Your task to perform on an android device: change keyboard looks Image 0: 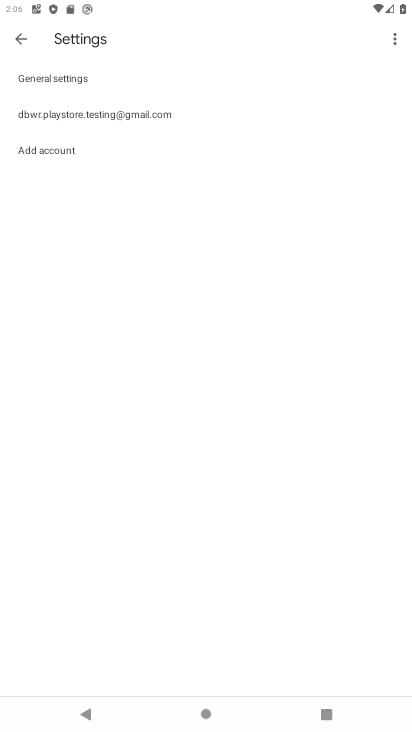
Step 0: press home button
Your task to perform on an android device: change keyboard looks Image 1: 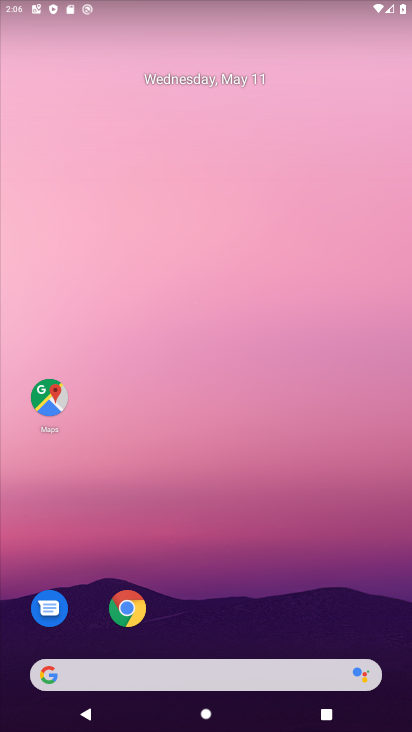
Step 1: drag from (157, 52) to (252, 536)
Your task to perform on an android device: change keyboard looks Image 2: 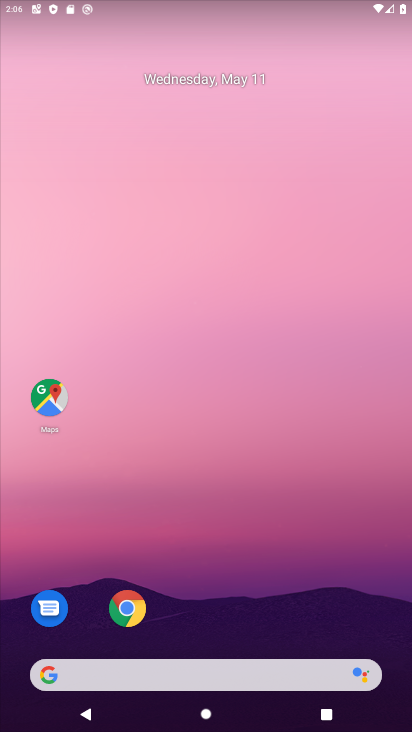
Step 2: drag from (170, 9) to (164, 639)
Your task to perform on an android device: change keyboard looks Image 3: 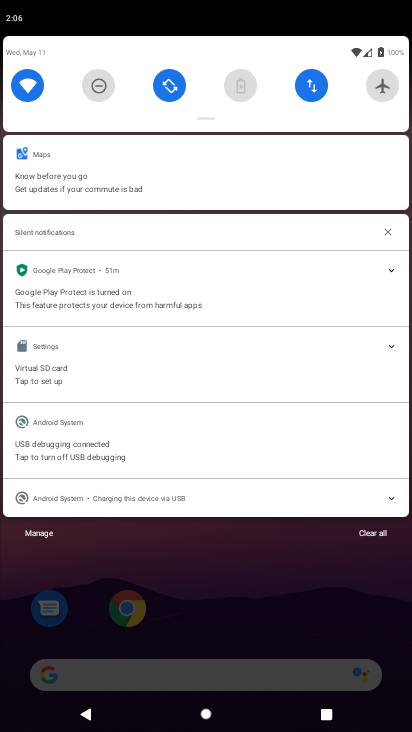
Step 3: drag from (349, 200) to (411, 491)
Your task to perform on an android device: change keyboard looks Image 4: 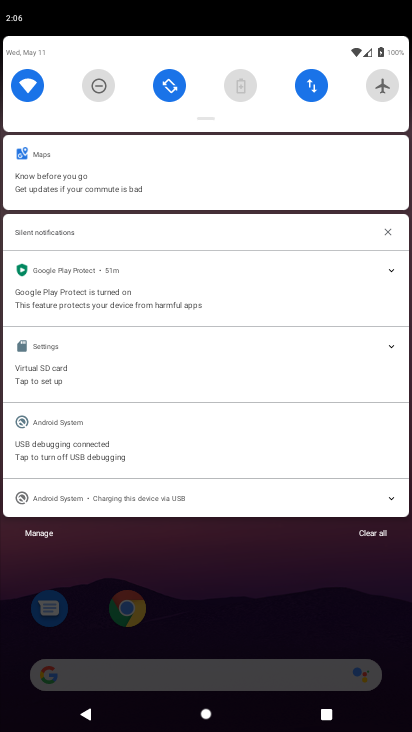
Step 4: click (297, 612)
Your task to perform on an android device: change keyboard looks Image 5: 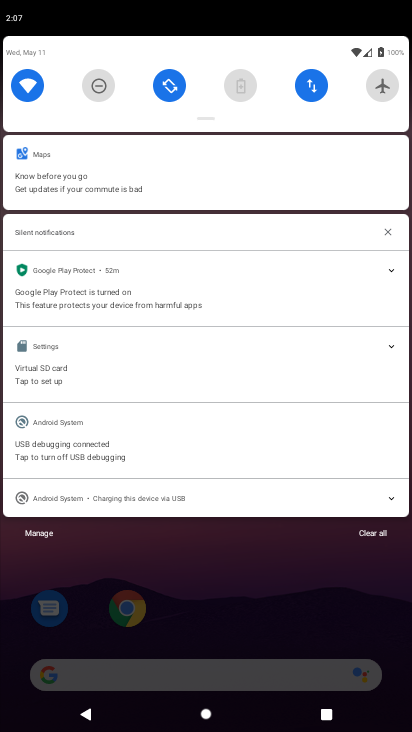
Step 5: drag from (303, 591) to (349, 54)
Your task to perform on an android device: change keyboard looks Image 6: 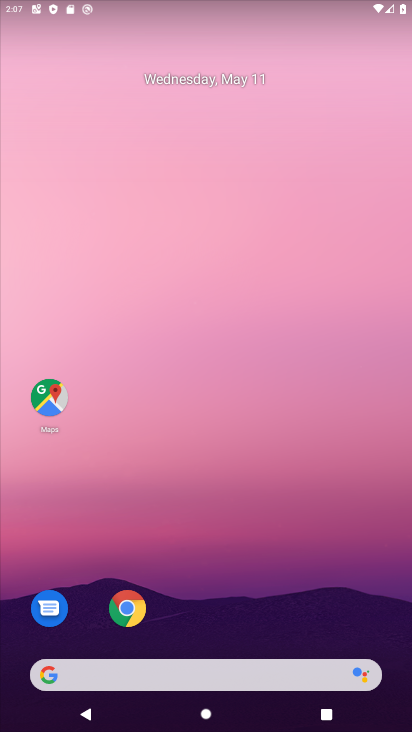
Step 6: drag from (246, 564) to (241, 52)
Your task to perform on an android device: change keyboard looks Image 7: 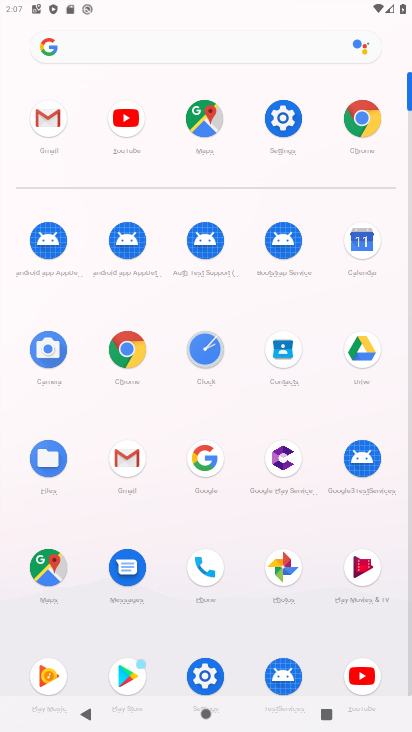
Step 7: click (268, 129)
Your task to perform on an android device: change keyboard looks Image 8: 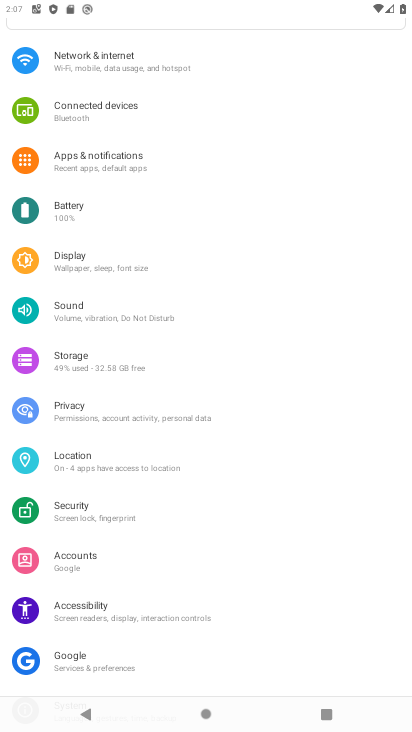
Step 8: drag from (275, 497) to (367, 82)
Your task to perform on an android device: change keyboard looks Image 9: 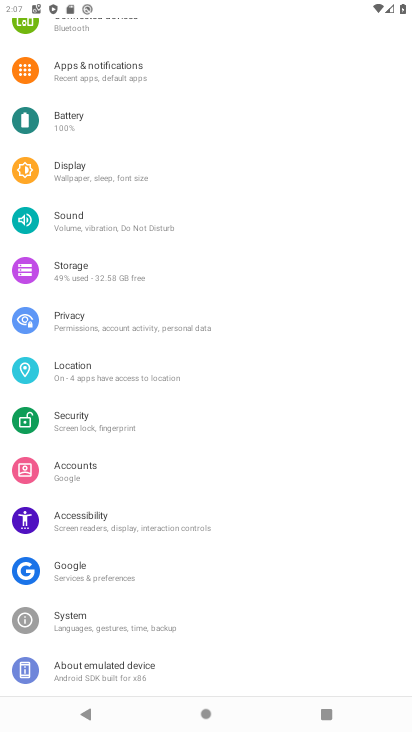
Step 9: click (188, 628)
Your task to perform on an android device: change keyboard looks Image 10: 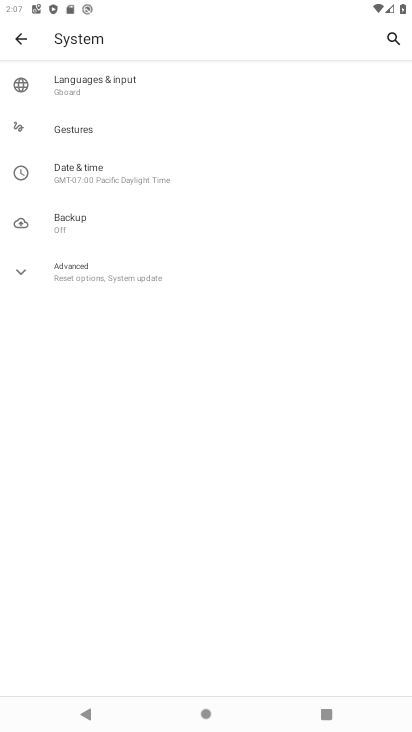
Step 10: click (100, 90)
Your task to perform on an android device: change keyboard looks Image 11: 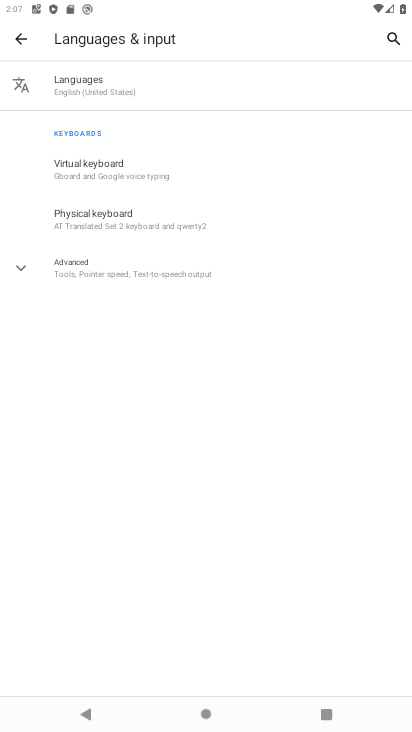
Step 11: click (132, 168)
Your task to perform on an android device: change keyboard looks Image 12: 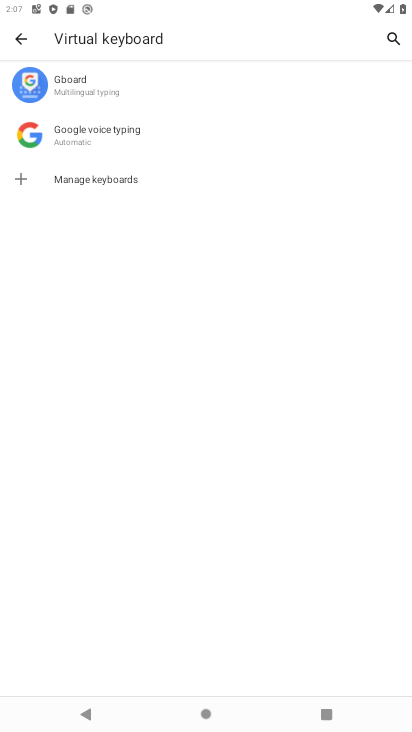
Step 12: click (131, 96)
Your task to perform on an android device: change keyboard looks Image 13: 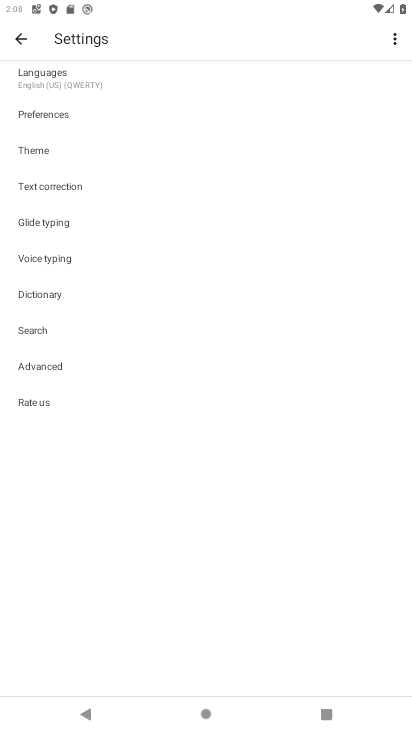
Step 13: click (134, 162)
Your task to perform on an android device: change keyboard looks Image 14: 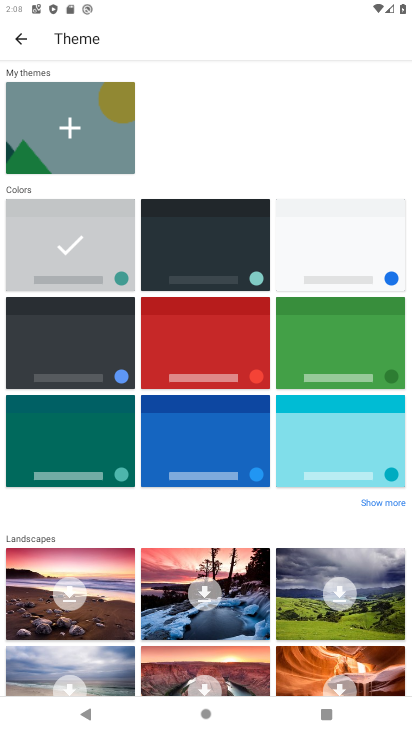
Step 14: click (231, 349)
Your task to perform on an android device: change keyboard looks Image 15: 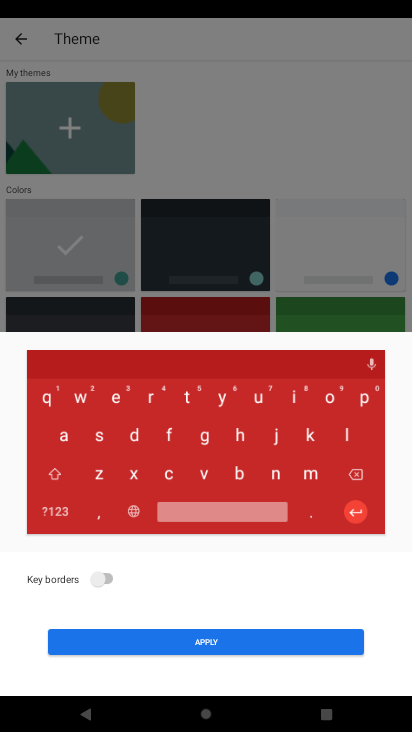
Step 15: click (194, 643)
Your task to perform on an android device: change keyboard looks Image 16: 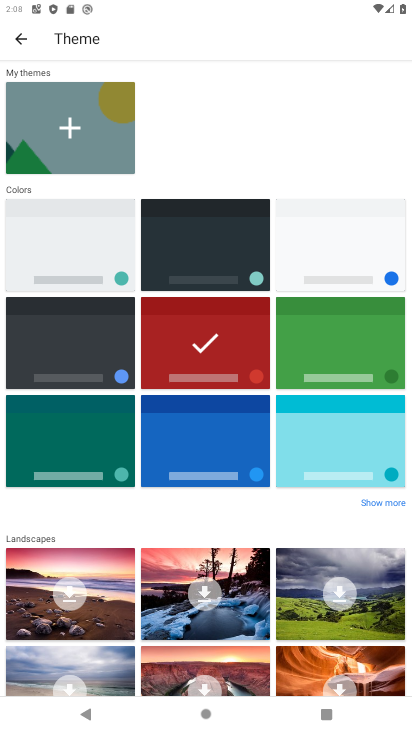
Step 16: task complete